Your task to perform on an android device: Open Google Maps and go to "Timeline" Image 0: 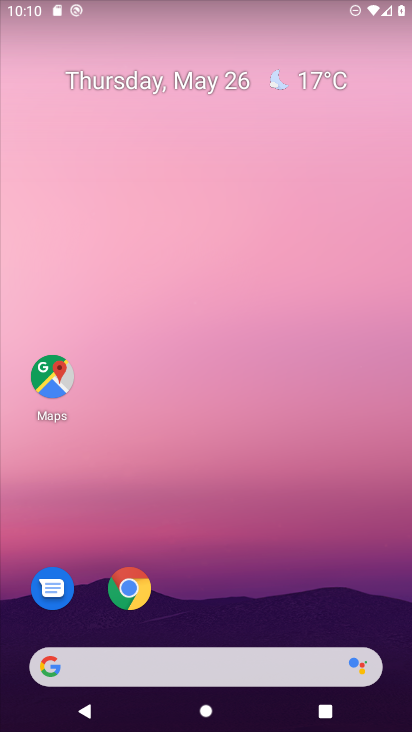
Step 0: click (55, 375)
Your task to perform on an android device: Open Google Maps and go to "Timeline" Image 1: 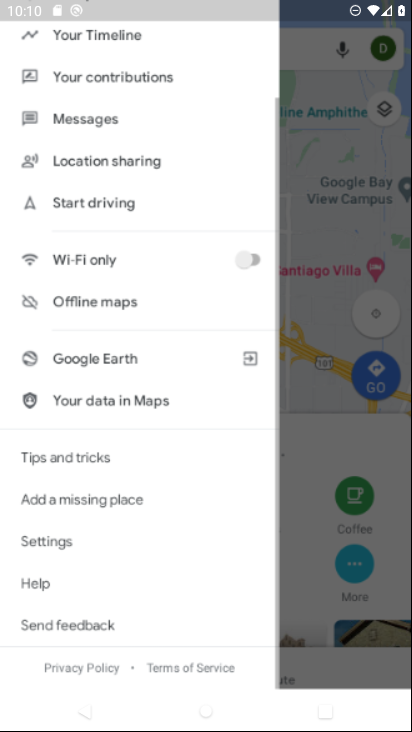
Step 1: drag from (191, 163) to (167, 590)
Your task to perform on an android device: Open Google Maps and go to "Timeline" Image 2: 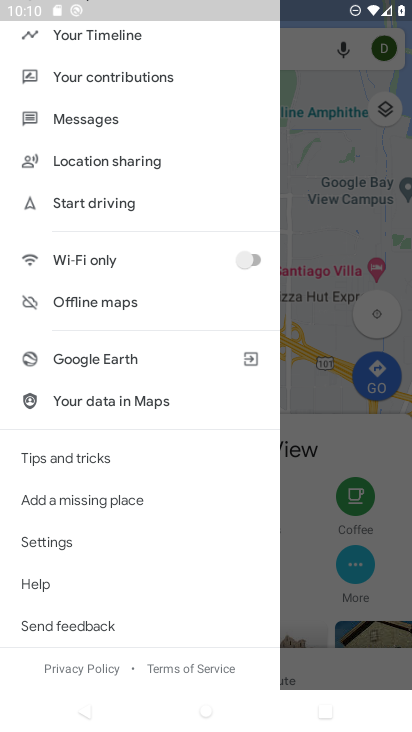
Step 2: drag from (174, 178) to (197, 509)
Your task to perform on an android device: Open Google Maps and go to "Timeline" Image 3: 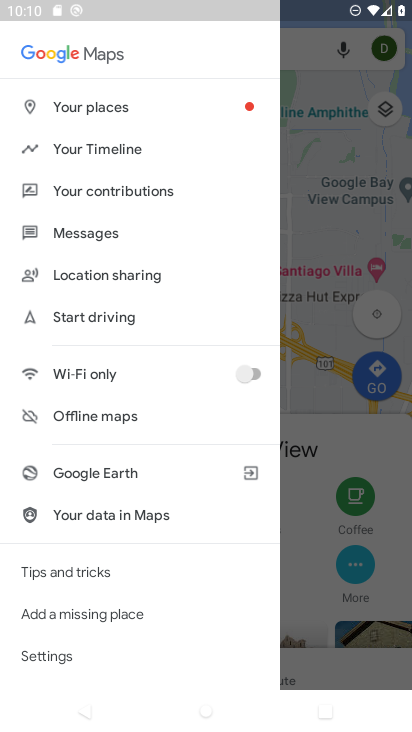
Step 3: click (92, 147)
Your task to perform on an android device: Open Google Maps and go to "Timeline" Image 4: 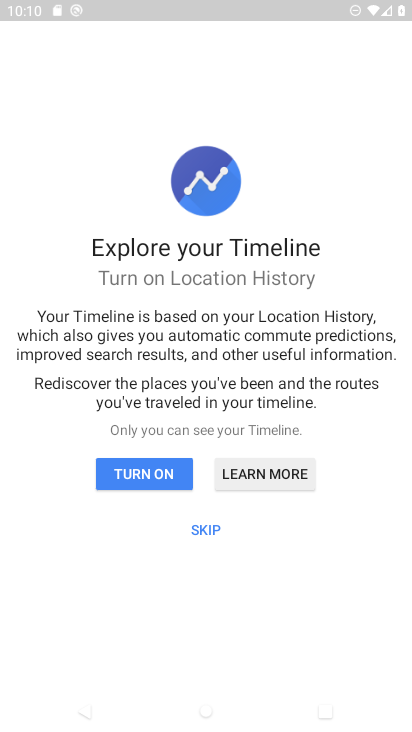
Step 4: click (203, 529)
Your task to perform on an android device: Open Google Maps and go to "Timeline" Image 5: 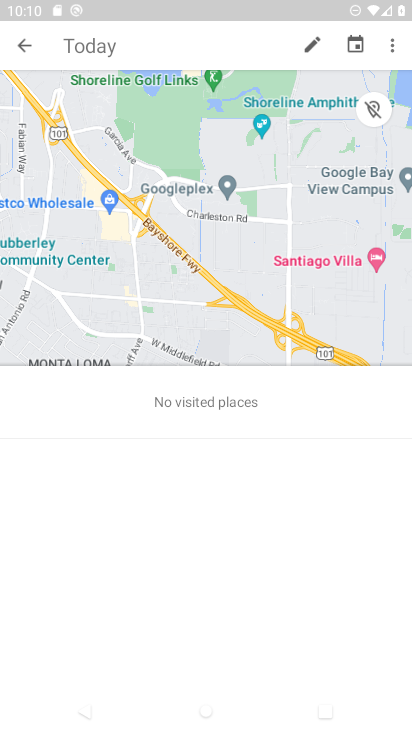
Step 5: task complete